Your task to perform on an android device: Open settings on Google Maps Image 0: 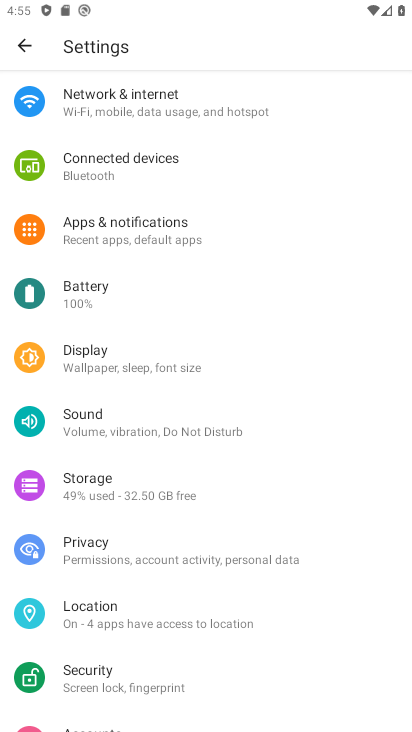
Step 0: press back button
Your task to perform on an android device: Open settings on Google Maps Image 1: 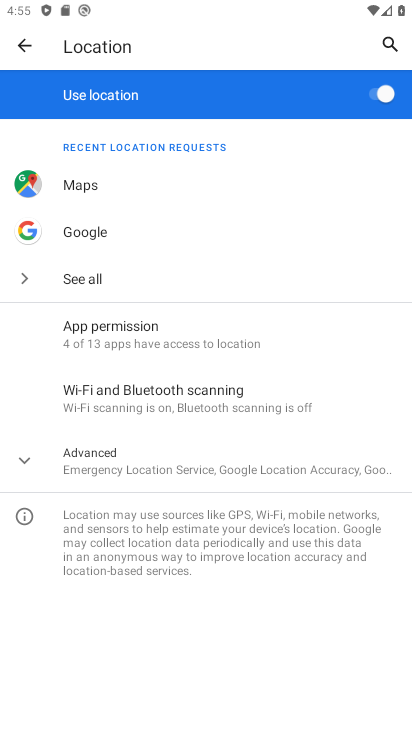
Step 1: press back button
Your task to perform on an android device: Open settings on Google Maps Image 2: 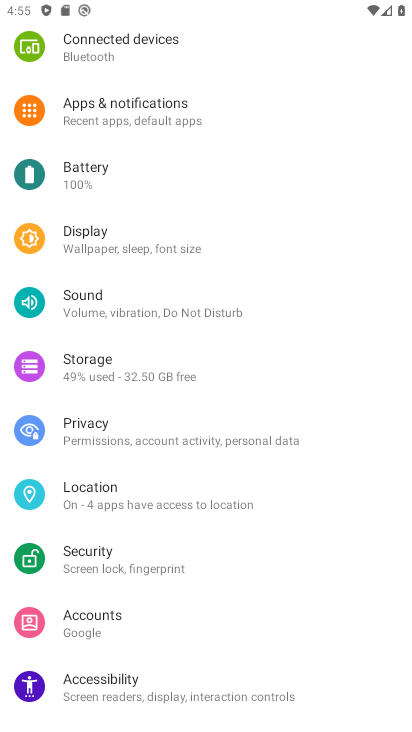
Step 2: press home button
Your task to perform on an android device: Open settings on Google Maps Image 3: 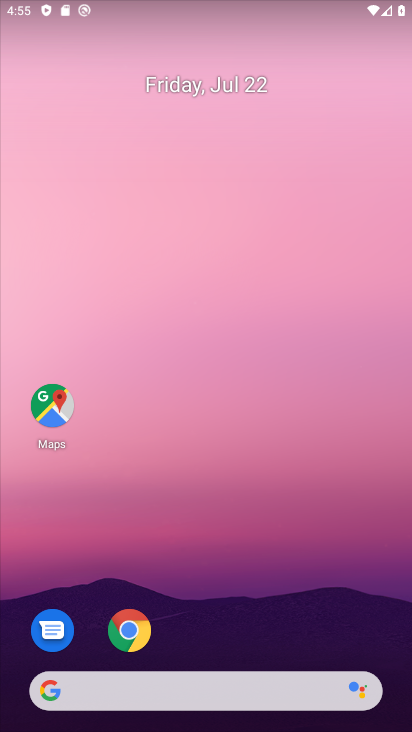
Step 3: click (56, 405)
Your task to perform on an android device: Open settings on Google Maps Image 4: 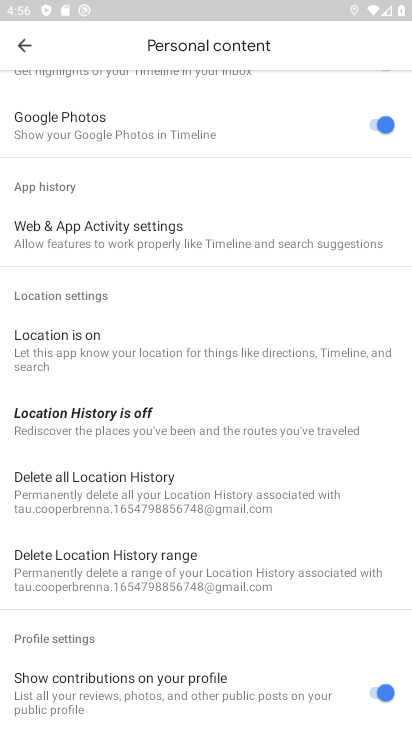
Step 4: click (13, 39)
Your task to perform on an android device: Open settings on Google Maps Image 5: 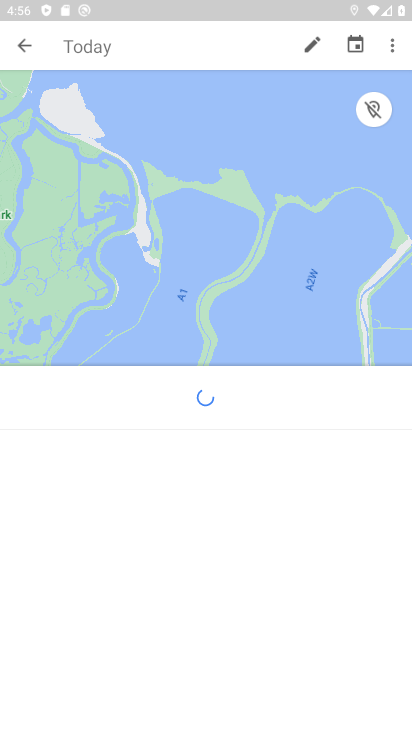
Step 5: click (13, 39)
Your task to perform on an android device: Open settings on Google Maps Image 6: 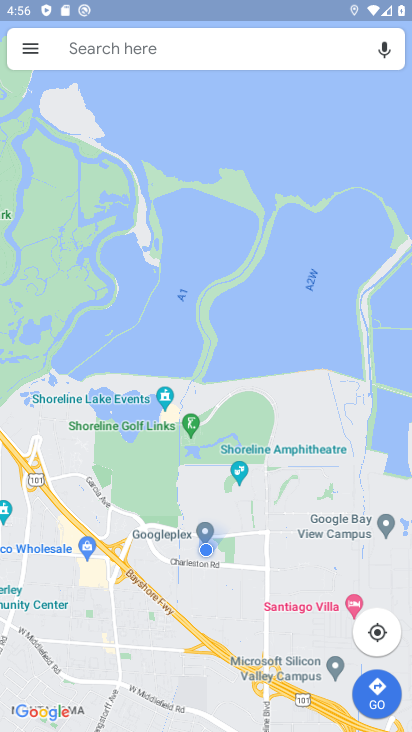
Step 6: click (17, 42)
Your task to perform on an android device: Open settings on Google Maps Image 7: 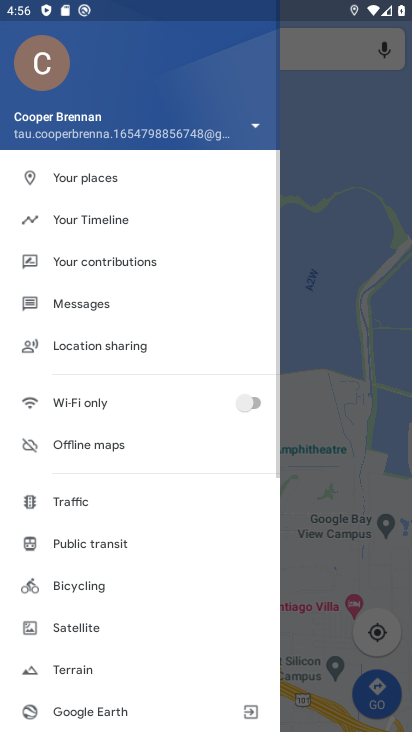
Step 7: click (27, 52)
Your task to perform on an android device: Open settings on Google Maps Image 8: 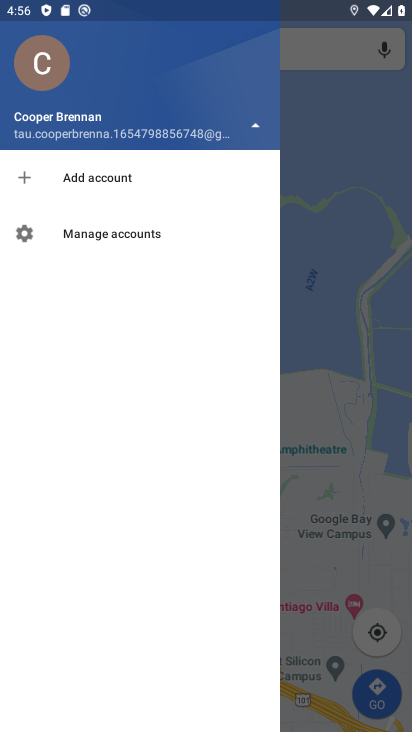
Step 8: press back button
Your task to perform on an android device: Open settings on Google Maps Image 9: 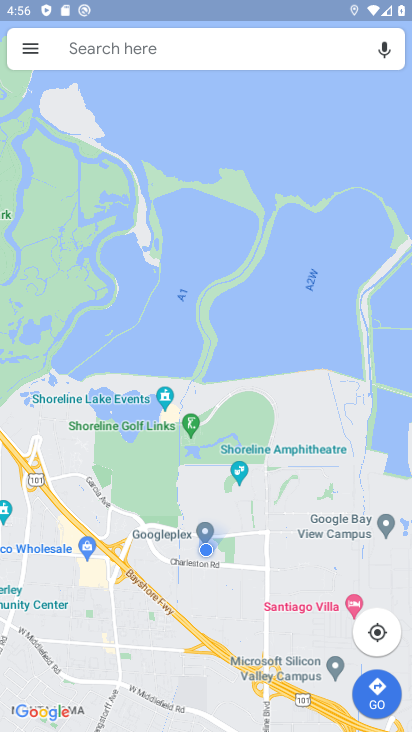
Step 9: click (33, 46)
Your task to perform on an android device: Open settings on Google Maps Image 10: 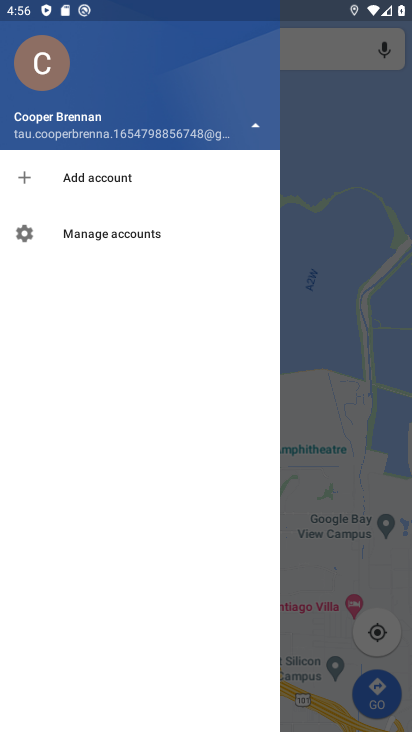
Step 10: click (85, 225)
Your task to perform on an android device: Open settings on Google Maps Image 11: 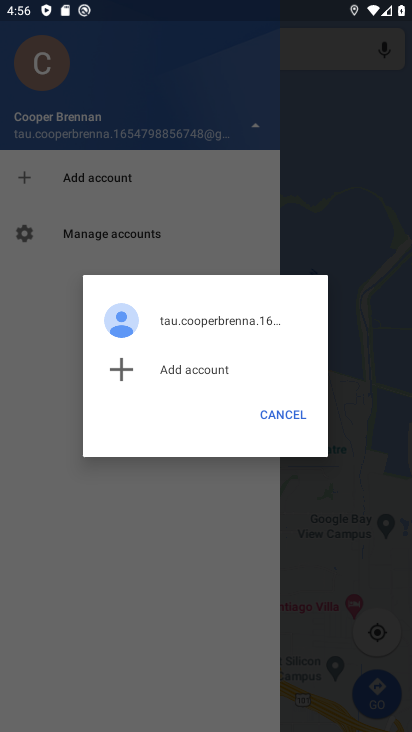
Step 11: click (302, 415)
Your task to perform on an android device: Open settings on Google Maps Image 12: 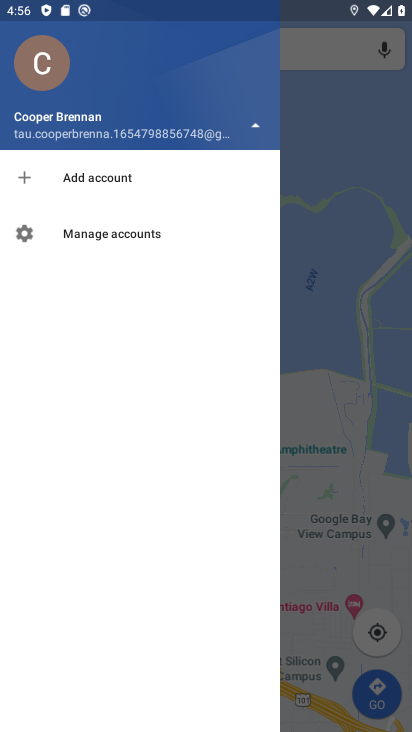
Step 12: click (305, 413)
Your task to perform on an android device: Open settings on Google Maps Image 13: 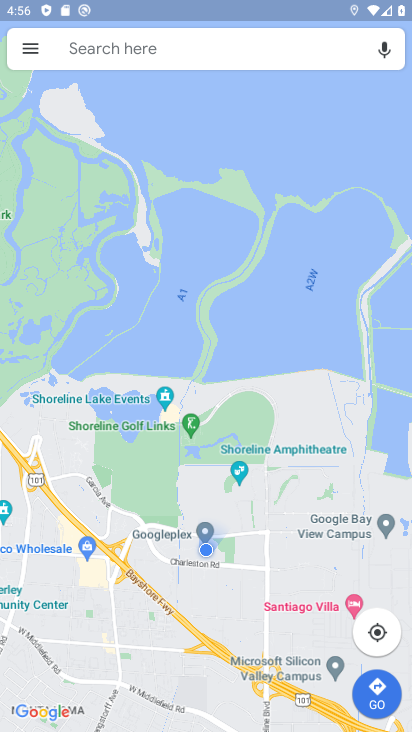
Step 13: task complete